Your task to perform on an android device: open chrome privacy settings Image 0: 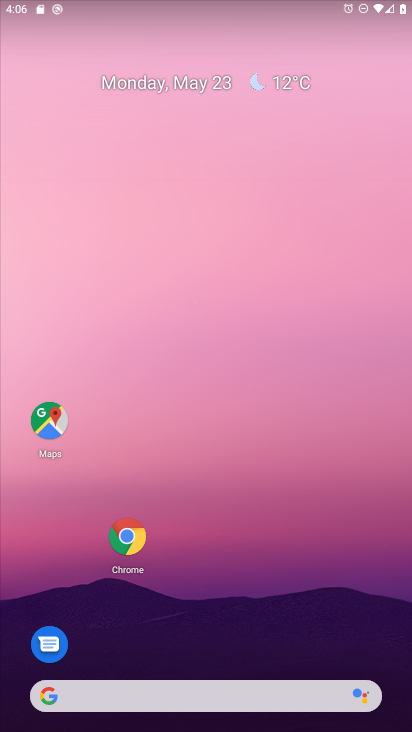
Step 0: click (129, 539)
Your task to perform on an android device: open chrome privacy settings Image 1: 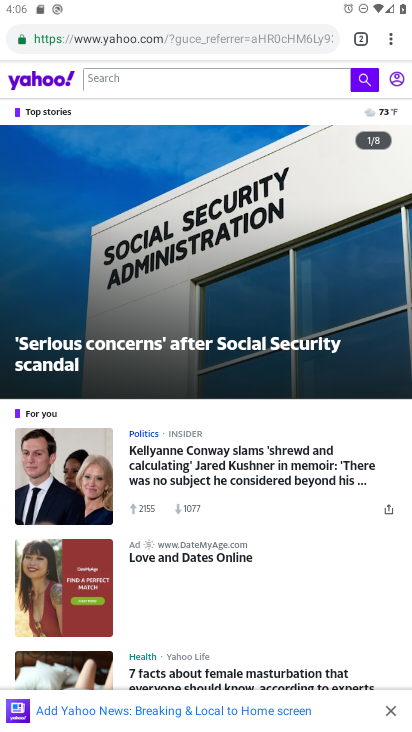
Step 1: click (386, 34)
Your task to perform on an android device: open chrome privacy settings Image 2: 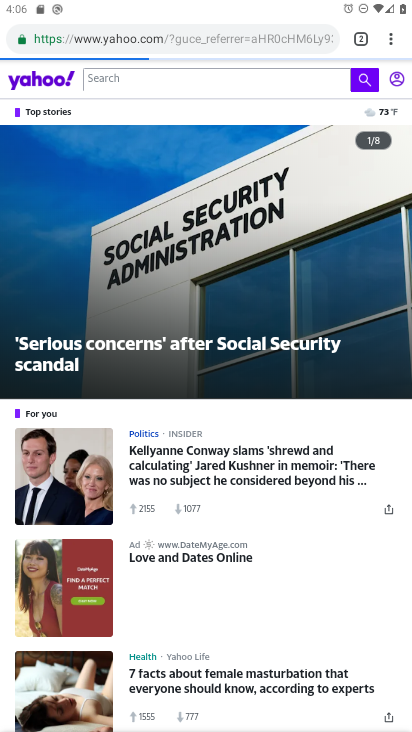
Step 2: drag from (401, 33) to (269, 480)
Your task to perform on an android device: open chrome privacy settings Image 3: 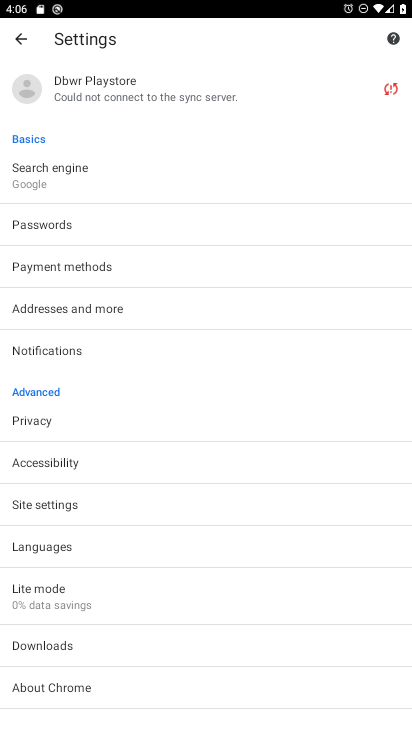
Step 3: drag from (257, 609) to (304, 153)
Your task to perform on an android device: open chrome privacy settings Image 4: 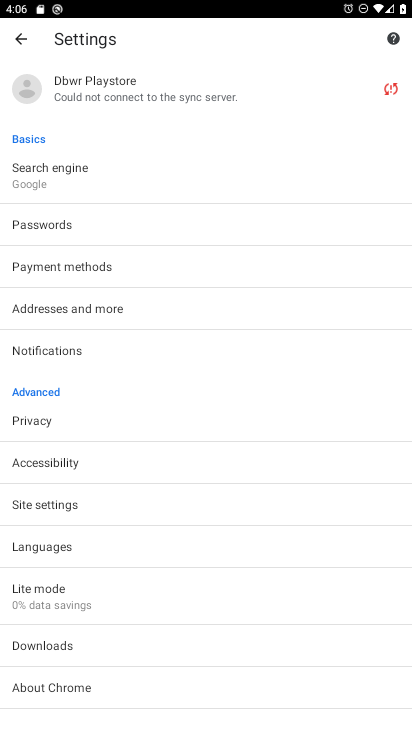
Step 4: click (58, 414)
Your task to perform on an android device: open chrome privacy settings Image 5: 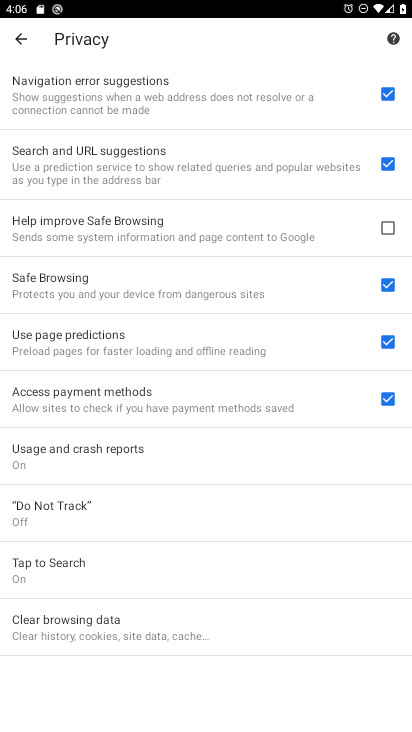
Step 5: task complete